Your task to perform on an android device: stop showing notifications on the lock screen Image 0: 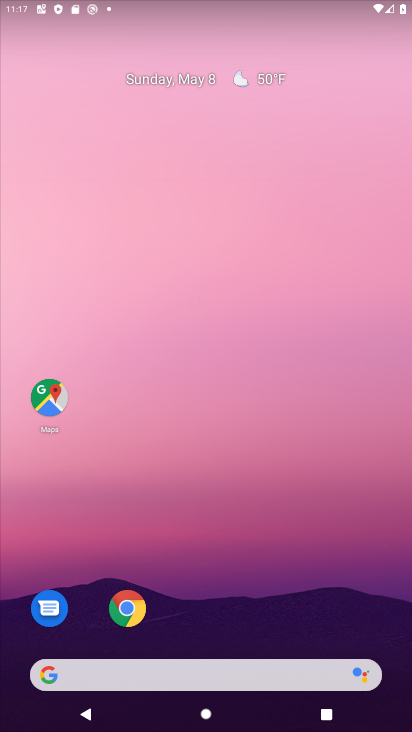
Step 0: drag from (274, 583) to (362, 50)
Your task to perform on an android device: stop showing notifications on the lock screen Image 1: 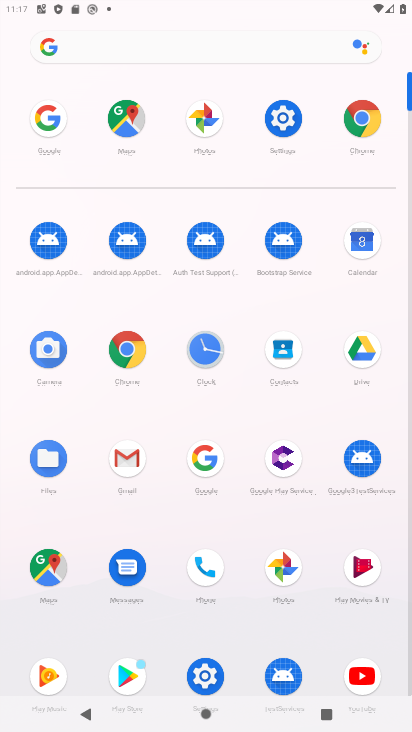
Step 1: click (299, 116)
Your task to perform on an android device: stop showing notifications on the lock screen Image 2: 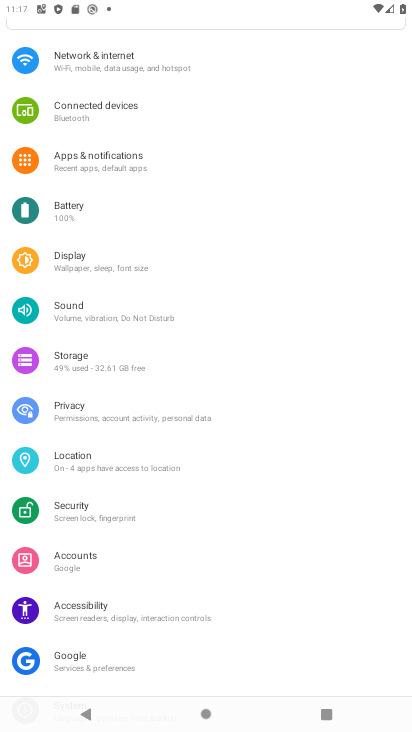
Step 2: click (113, 168)
Your task to perform on an android device: stop showing notifications on the lock screen Image 3: 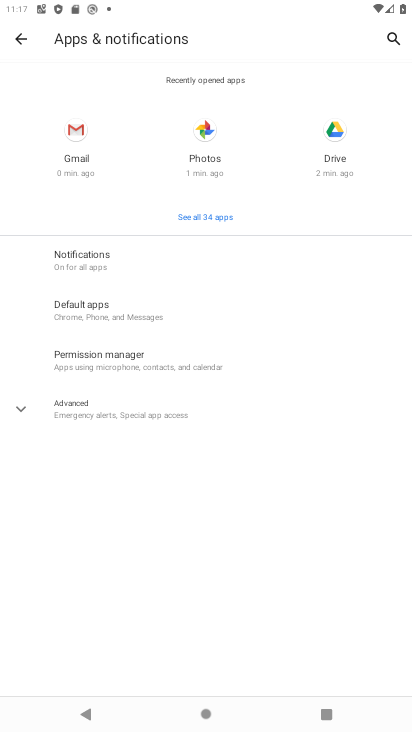
Step 3: click (65, 265)
Your task to perform on an android device: stop showing notifications on the lock screen Image 4: 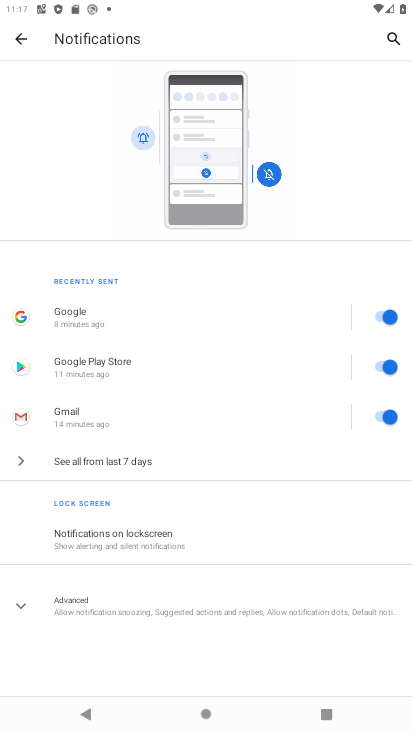
Step 4: click (100, 595)
Your task to perform on an android device: stop showing notifications on the lock screen Image 5: 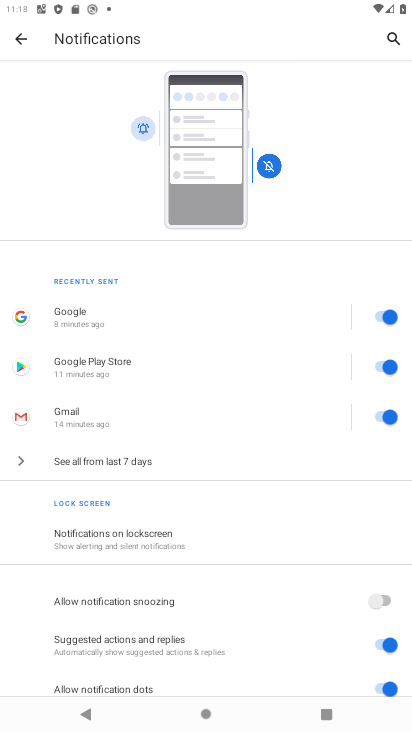
Step 5: click (392, 311)
Your task to perform on an android device: stop showing notifications on the lock screen Image 6: 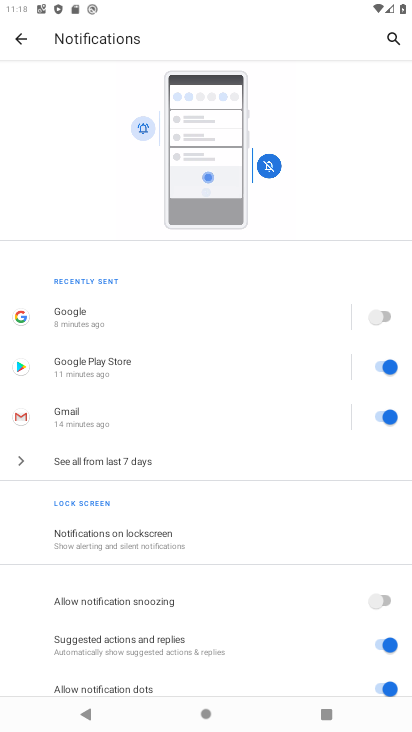
Step 6: task complete